Your task to perform on an android device: Open the phone app and click the voicemail tab. Image 0: 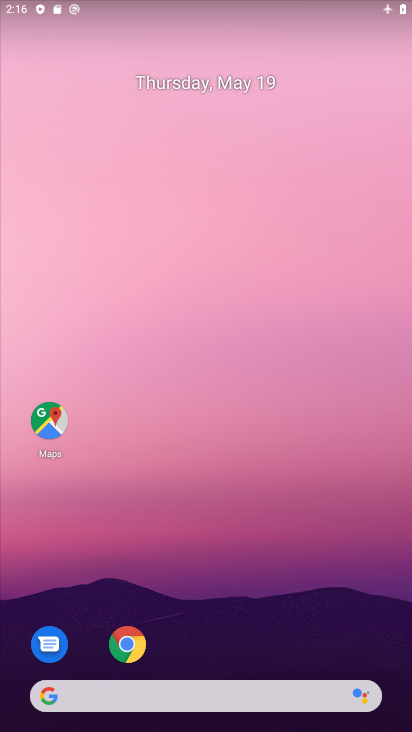
Step 0: drag from (283, 576) to (277, 241)
Your task to perform on an android device: Open the phone app and click the voicemail tab. Image 1: 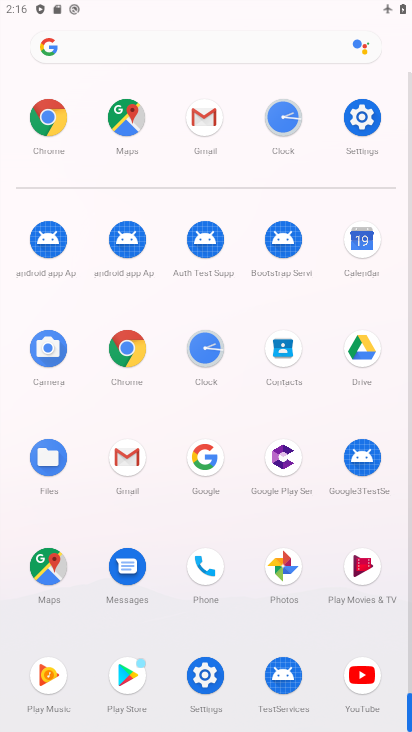
Step 1: click (193, 556)
Your task to perform on an android device: Open the phone app and click the voicemail tab. Image 2: 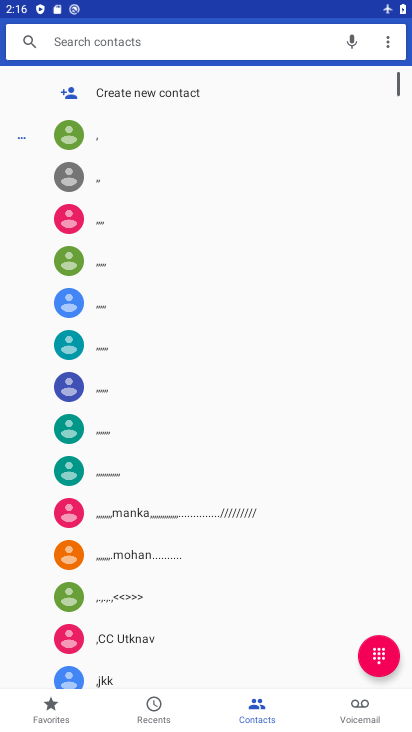
Step 2: click (351, 708)
Your task to perform on an android device: Open the phone app and click the voicemail tab. Image 3: 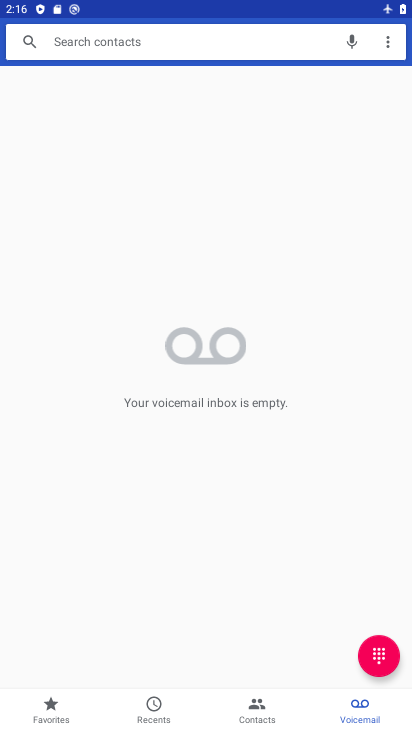
Step 3: task complete